Your task to perform on an android device: Open ESPN.com Image 0: 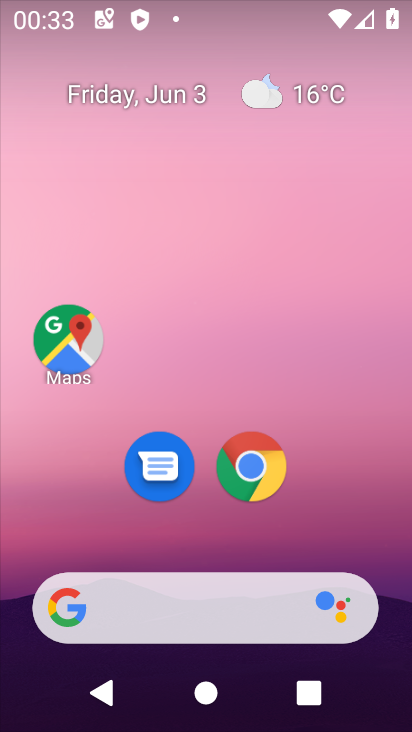
Step 0: click (265, 479)
Your task to perform on an android device: Open ESPN.com Image 1: 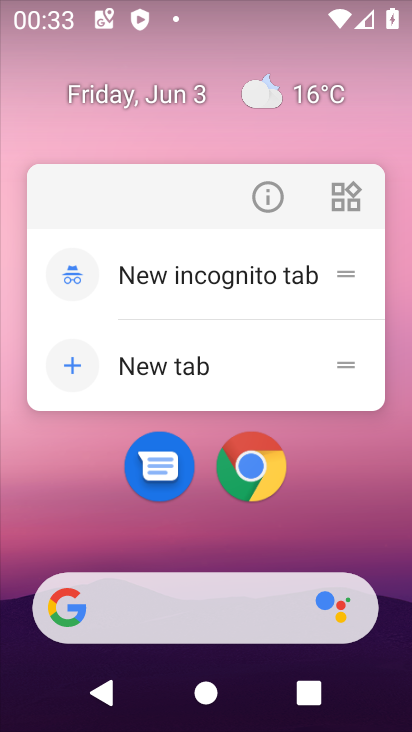
Step 1: click (261, 475)
Your task to perform on an android device: Open ESPN.com Image 2: 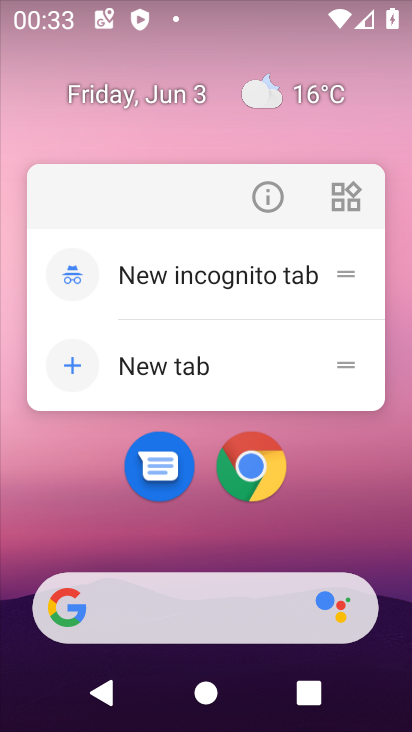
Step 2: click (261, 474)
Your task to perform on an android device: Open ESPN.com Image 3: 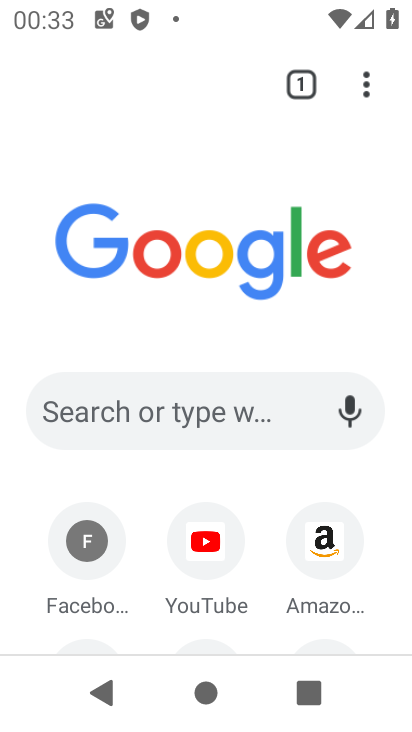
Step 3: drag from (195, 578) to (280, 273)
Your task to perform on an android device: Open ESPN.com Image 4: 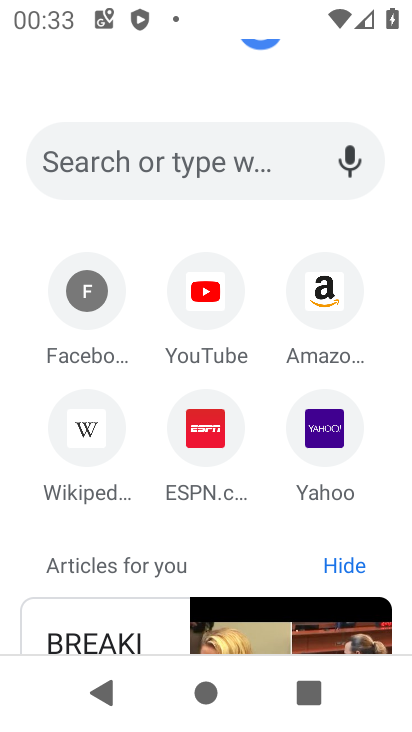
Step 4: click (218, 457)
Your task to perform on an android device: Open ESPN.com Image 5: 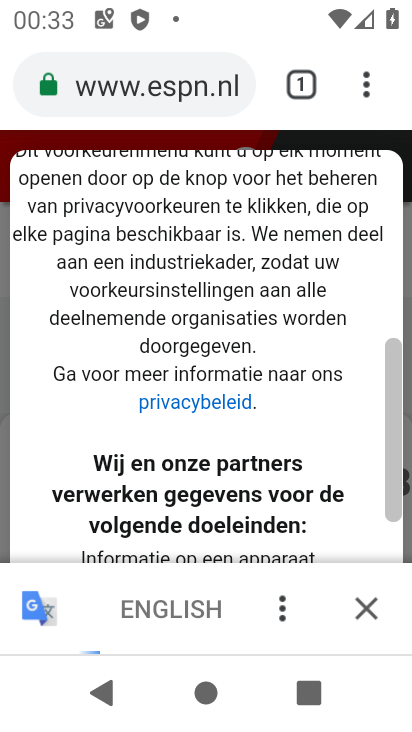
Step 5: click (368, 617)
Your task to perform on an android device: Open ESPN.com Image 6: 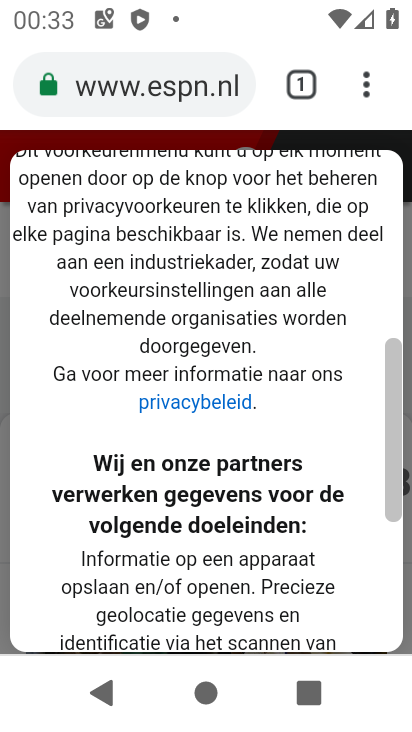
Step 6: drag from (259, 578) to (346, 231)
Your task to perform on an android device: Open ESPN.com Image 7: 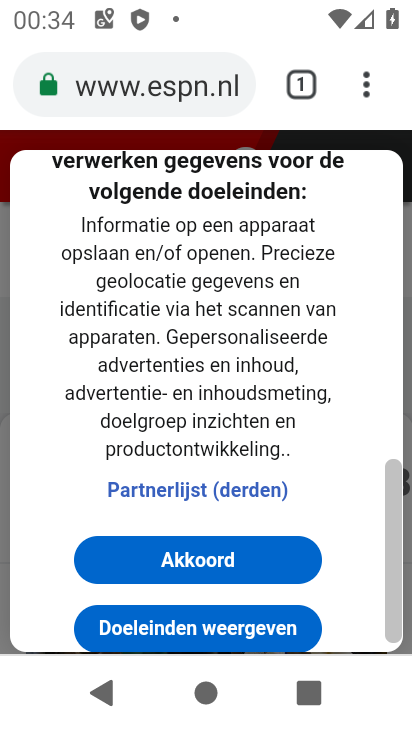
Step 7: click (205, 565)
Your task to perform on an android device: Open ESPN.com Image 8: 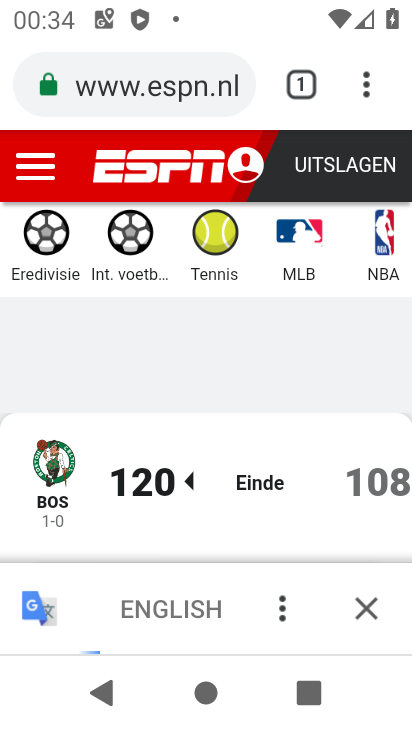
Step 8: task complete